Your task to perform on an android device: Add usb-c to the cart on target Image 0: 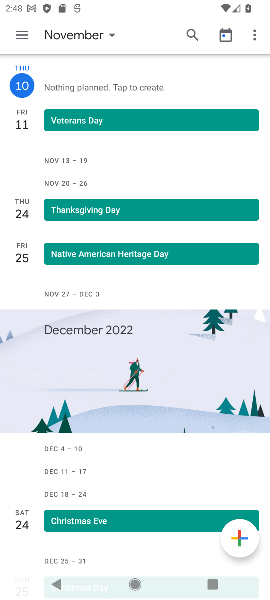
Step 0: press home button
Your task to perform on an android device: Add usb-c to the cart on target Image 1: 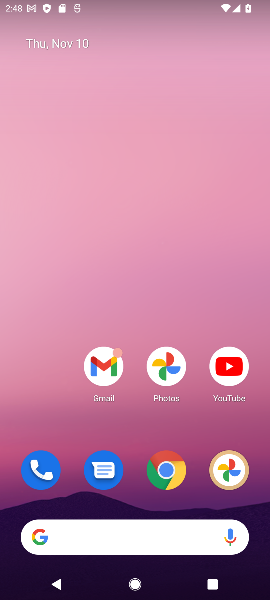
Step 1: click (170, 473)
Your task to perform on an android device: Add usb-c to the cart on target Image 2: 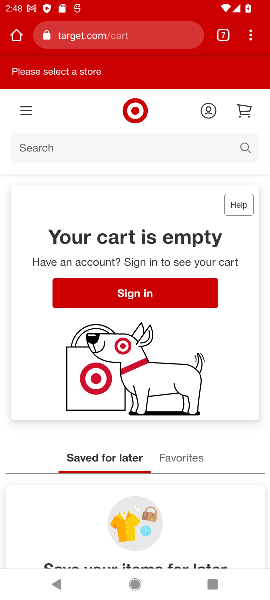
Step 2: click (50, 146)
Your task to perform on an android device: Add usb-c to the cart on target Image 3: 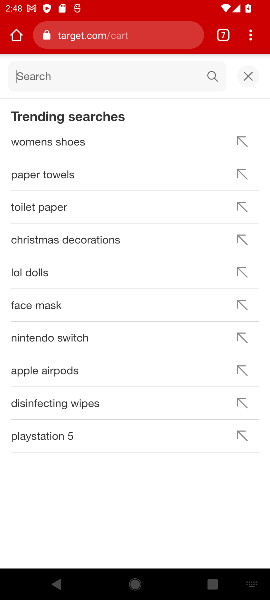
Step 3: type "usb-c "
Your task to perform on an android device: Add usb-c to the cart on target Image 4: 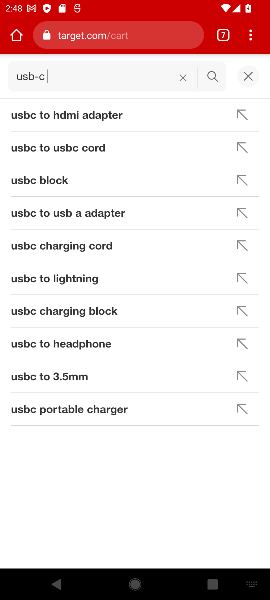
Step 4: click (73, 245)
Your task to perform on an android device: Add usb-c to the cart on target Image 5: 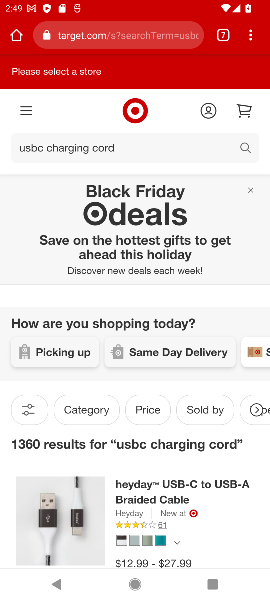
Step 5: click (180, 495)
Your task to perform on an android device: Add usb-c to the cart on target Image 6: 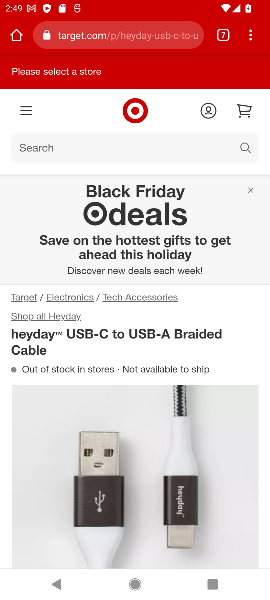
Step 6: drag from (239, 465) to (247, 233)
Your task to perform on an android device: Add usb-c to the cart on target Image 7: 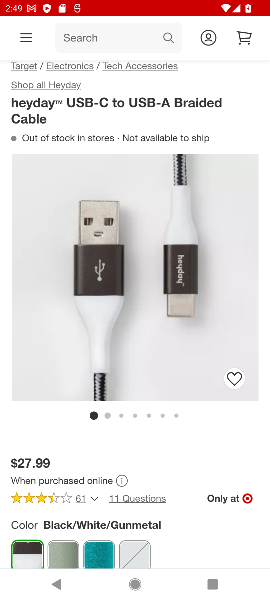
Step 7: drag from (135, 448) to (194, 242)
Your task to perform on an android device: Add usb-c to the cart on target Image 8: 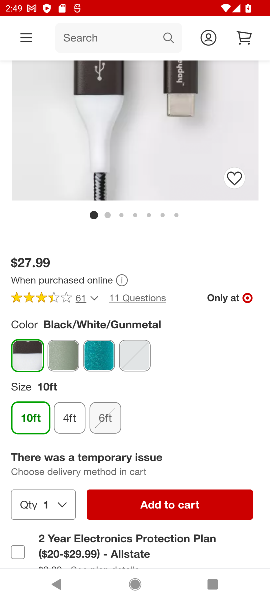
Step 8: click (157, 498)
Your task to perform on an android device: Add usb-c to the cart on target Image 9: 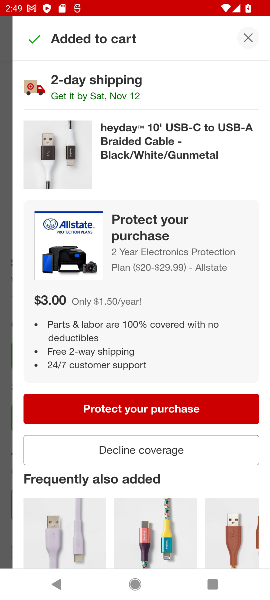
Step 9: task complete